Your task to perform on an android device: manage bookmarks in the chrome app Image 0: 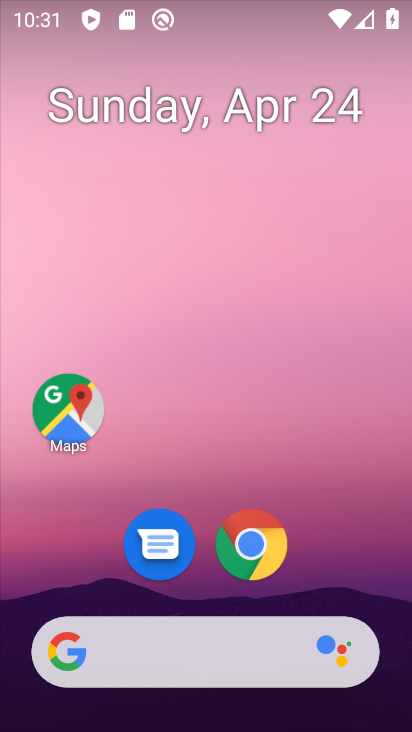
Step 0: click (237, 537)
Your task to perform on an android device: manage bookmarks in the chrome app Image 1: 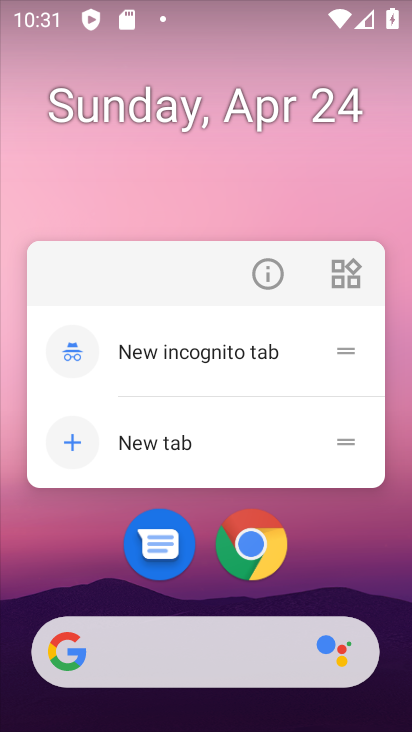
Step 1: click (253, 538)
Your task to perform on an android device: manage bookmarks in the chrome app Image 2: 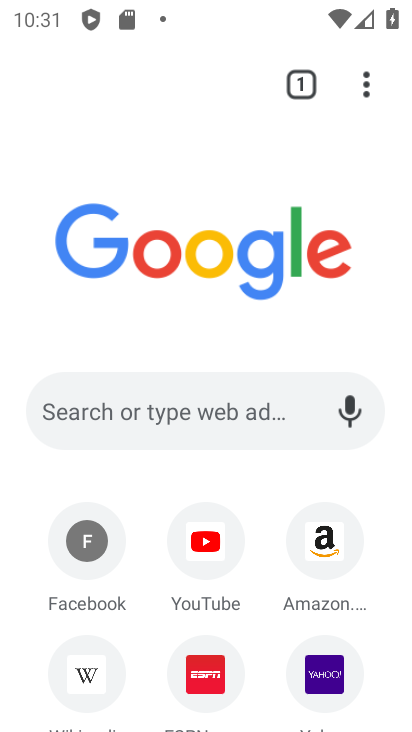
Step 2: drag from (369, 83) to (122, 318)
Your task to perform on an android device: manage bookmarks in the chrome app Image 3: 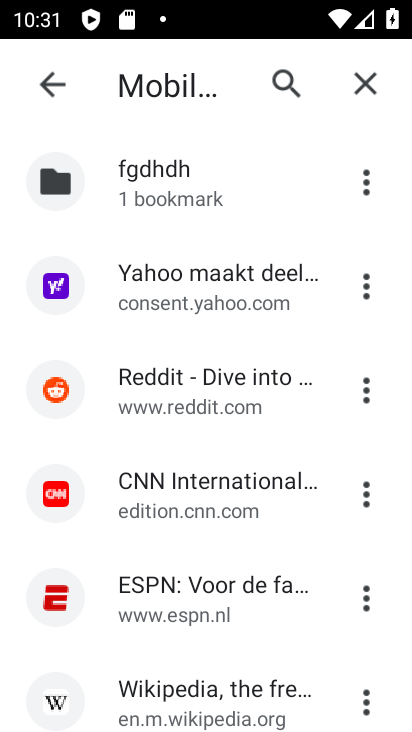
Step 3: click (366, 178)
Your task to perform on an android device: manage bookmarks in the chrome app Image 4: 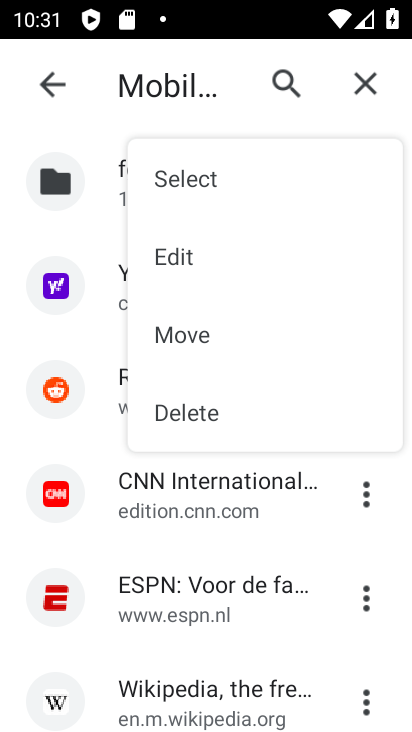
Step 4: click (190, 416)
Your task to perform on an android device: manage bookmarks in the chrome app Image 5: 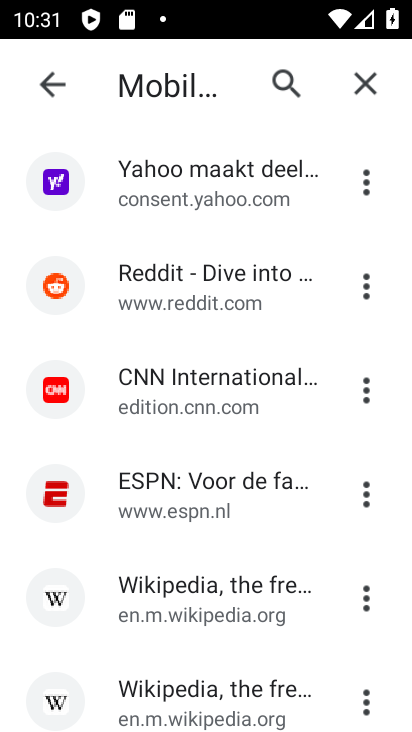
Step 5: task complete